Your task to perform on an android device: turn off picture-in-picture Image 0: 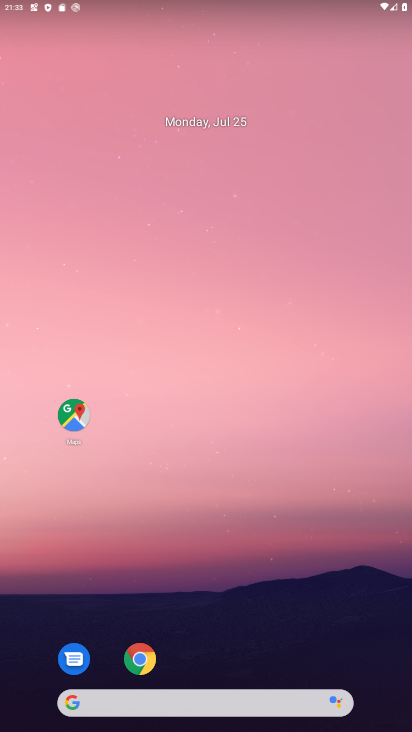
Step 0: click (154, 653)
Your task to perform on an android device: turn off picture-in-picture Image 1: 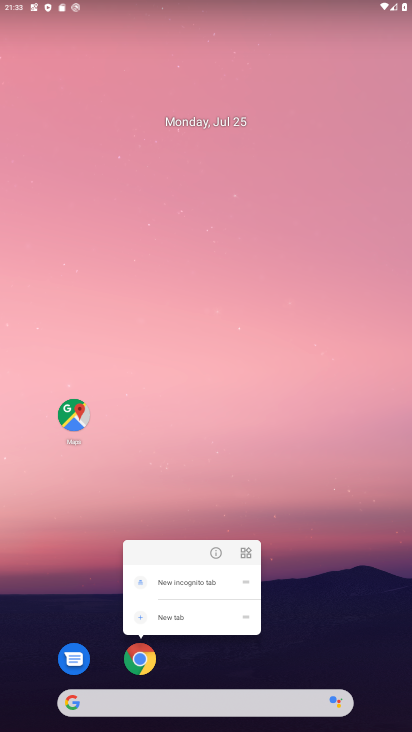
Step 1: click (207, 558)
Your task to perform on an android device: turn off picture-in-picture Image 2: 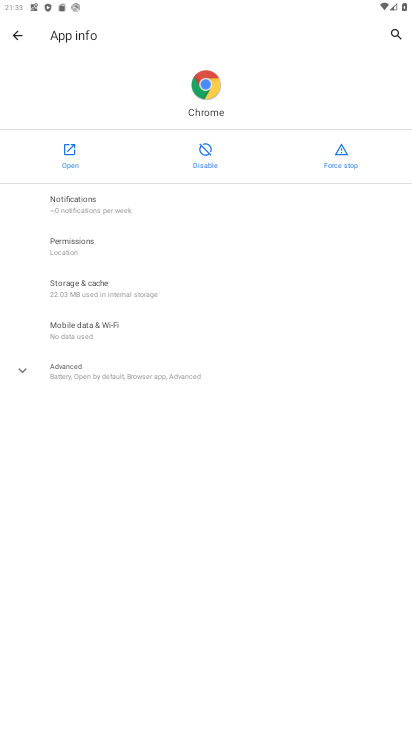
Step 2: click (119, 379)
Your task to perform on an android device: turn off picture-in-picture Image 3: 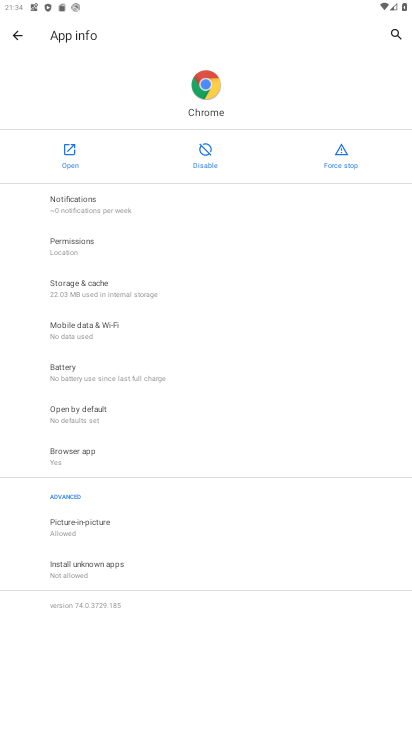
Step 3: click (126, 535)
Your task to perform on an android device: turn off picture-in-picture Image 4: 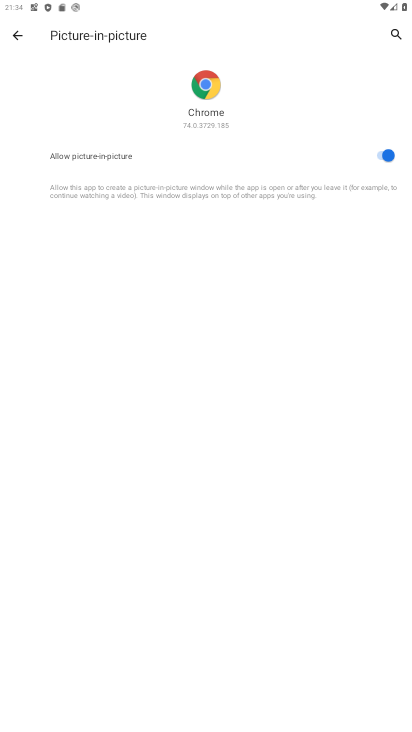
Step 4: click (368, 158)
Your task to perform on an android device: turn off picture-in-picture Image 5: 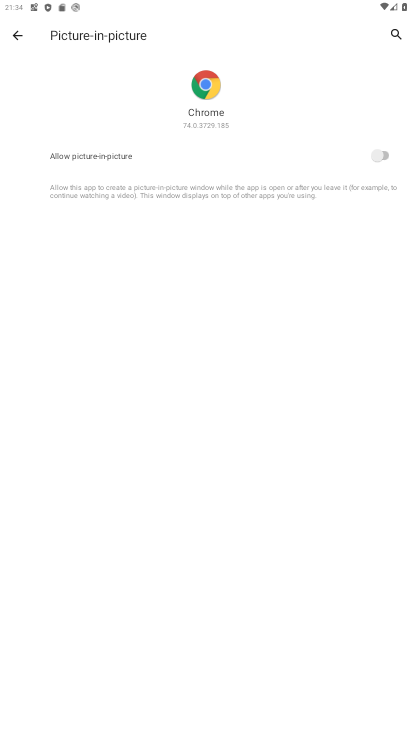
Step 5: task complete